Your task to perform on an android device: turn on the 24-hour format for clock Image 0: 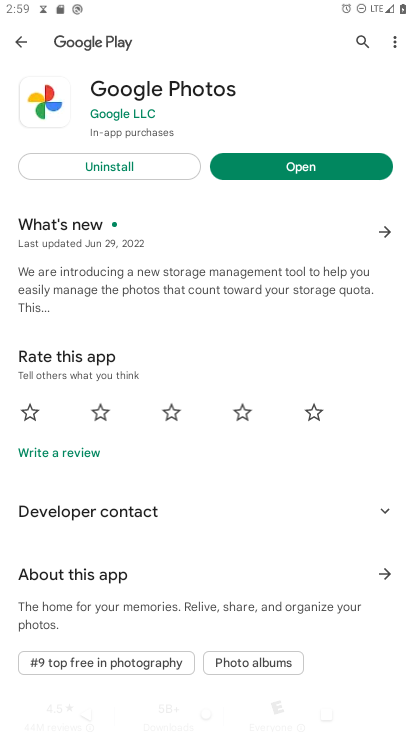
Step 0: press home button
Your task to perform on an android device: turn on the 24-hour format for clock Image 1: 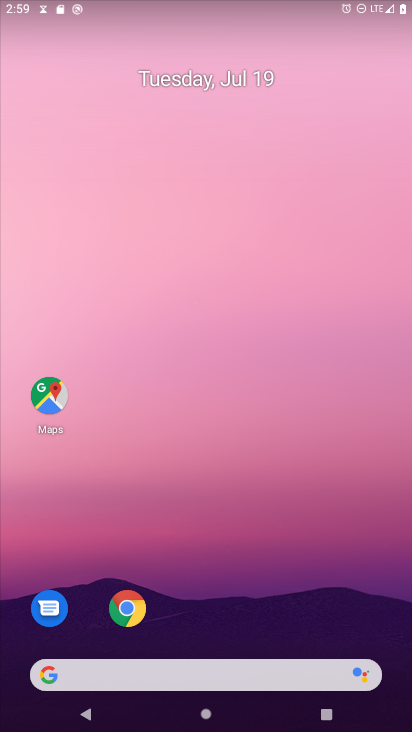
Step 1: drag from (294, 664) to (259, 3)
Your task to perform on an android device: turn on the 24-hour format for clock Image 2: 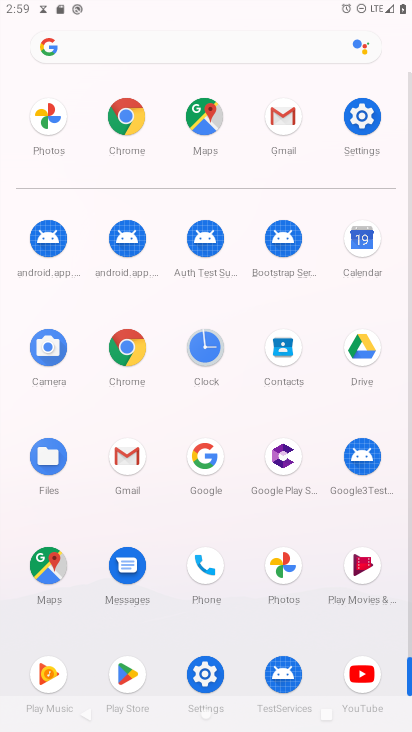
Step 2: click (205, 345)
Your task to perform on an android device: turn on the 24-hour format for clock Image 3: 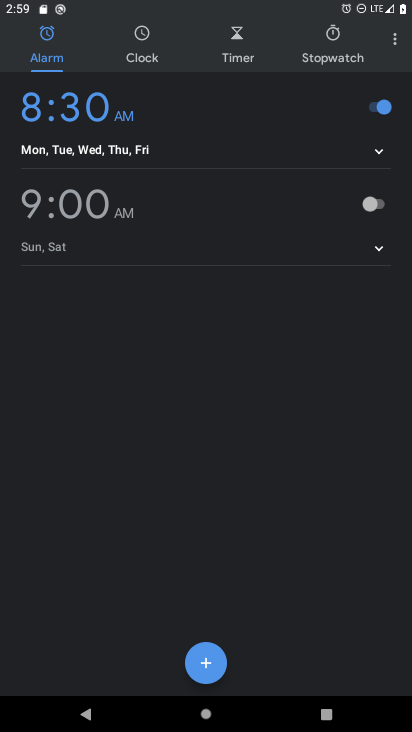
Step 3: click (398, 43)
Your task to perform on an android device: turn on the 24-hour format for clock Image 4: 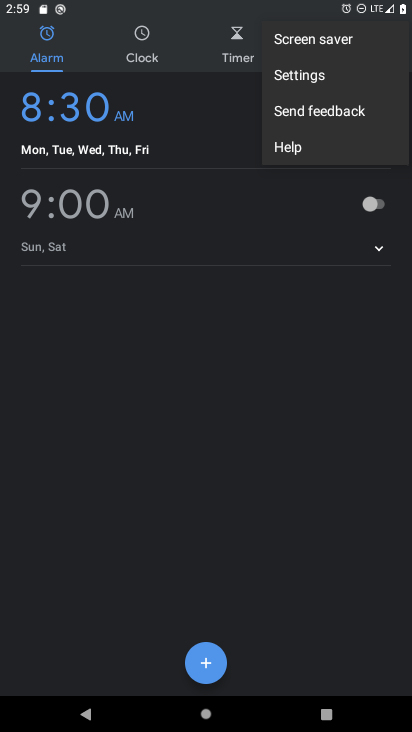
Step 4: click (306, 74)
Your task to perform on an android device: turn on the 24-hour format for clock Image 5: 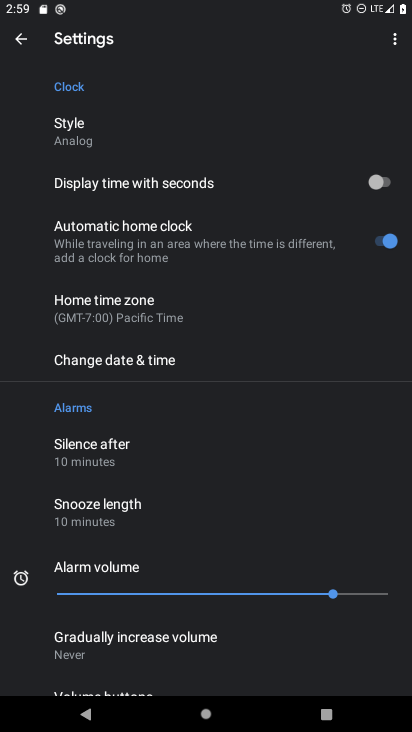
Step 5: click (140, 371)
Your task to perform on an android device: turn on the 24-hour format for clock Image 6: 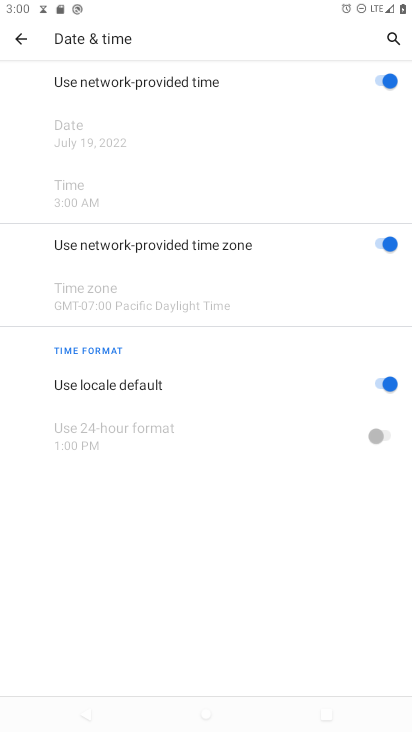
Step 6: click (391, 433)
Your task to perform on an android device: turn on the 24-hour format for clock Image 7: 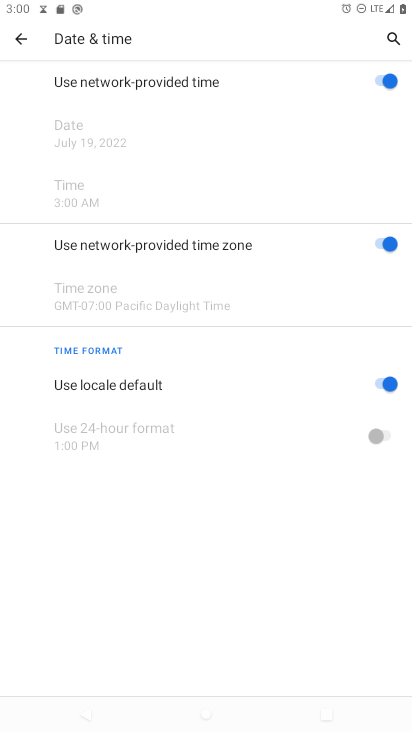
Step 7: click (380, 386)
Your task to perform on an android device: turn on the 24-hour format for clock Image 8: 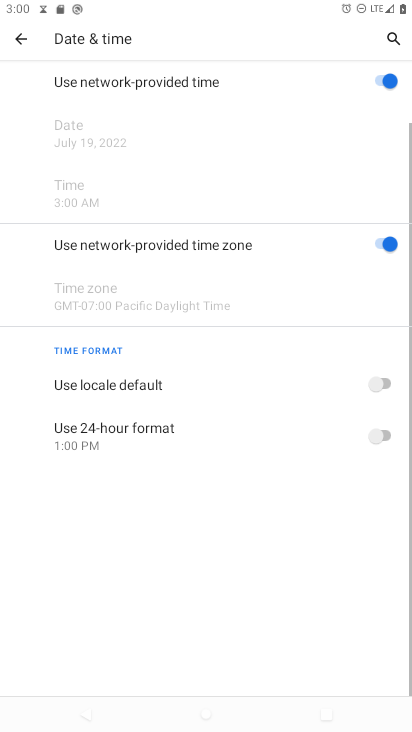
Step 8: click (386, 434)
Your task to perform on an android device: turn on the 24-hour format for clock Image 9: 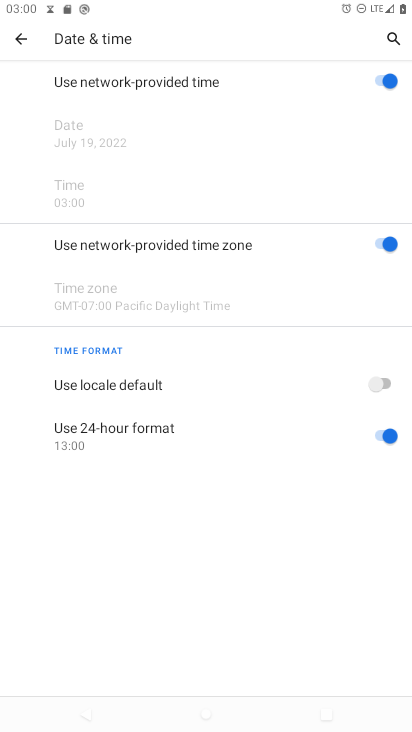
Step 9: task complete